Your task to perform on an android device: When is my next appointment? Image 0: 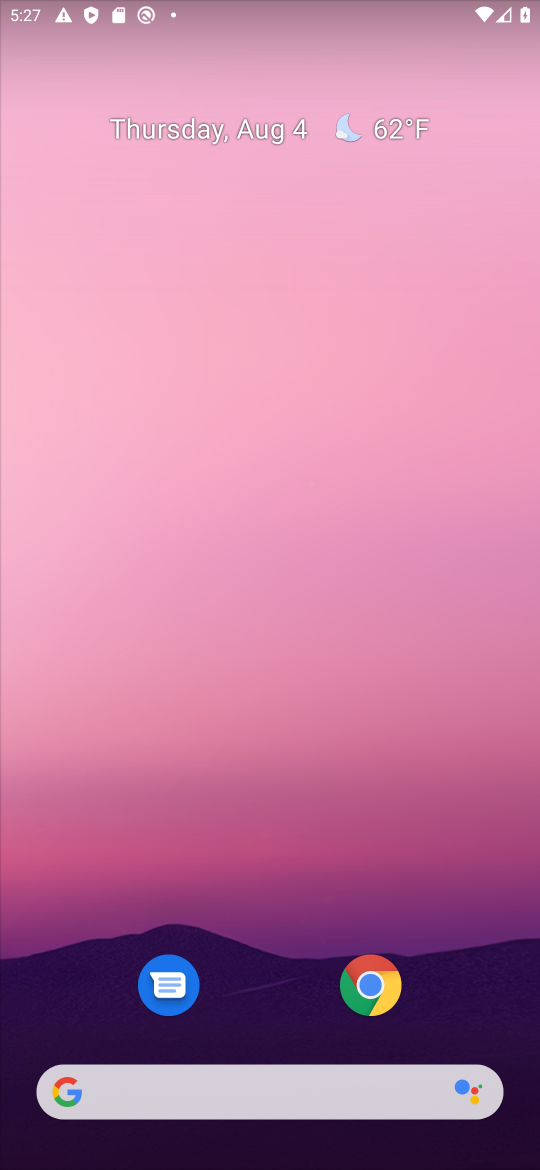
Step 0: drag from (298, 1090) to (210, 0)
Your task to perform on an android device: When is my next appointment? Image 1: 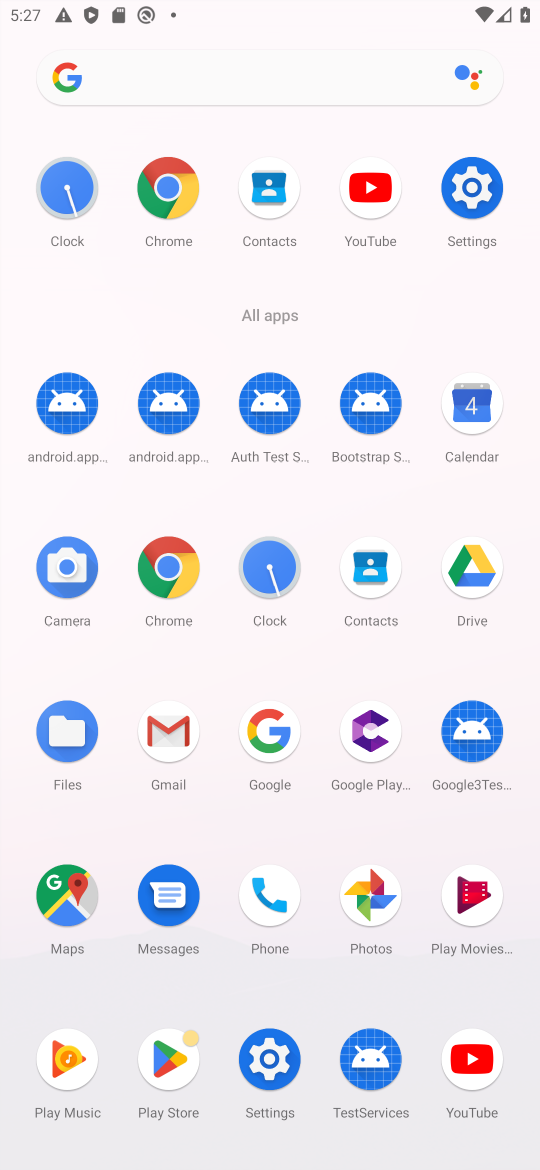
Step 1: click (489, 412)
Your task to perform on an android device: When is my next appointment? Image 2: 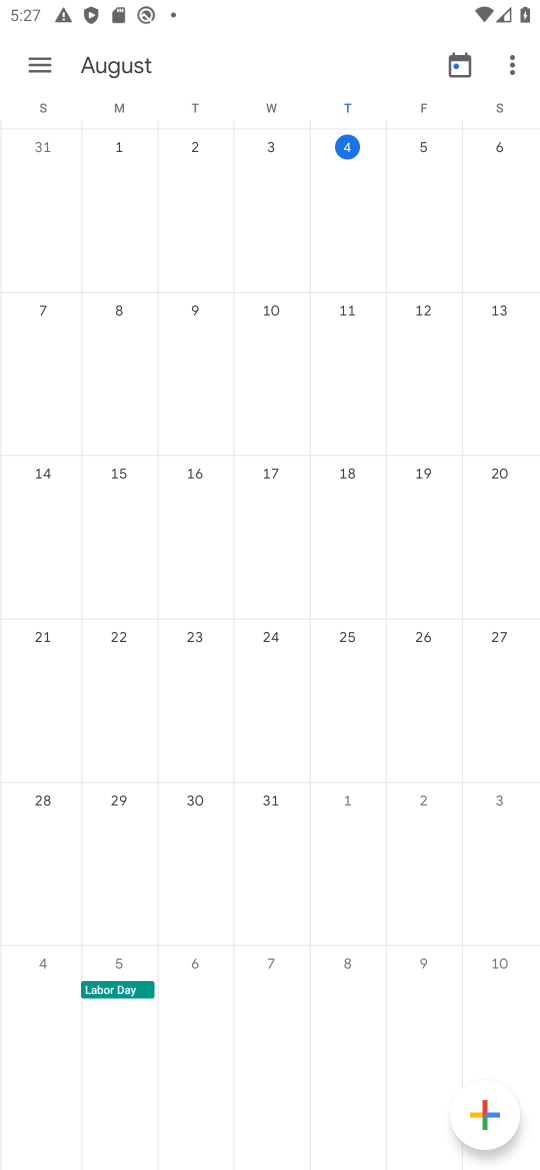
Step 2: click (31, 60)
Your task to perform on an android device: When is my next appointment? Image 3: 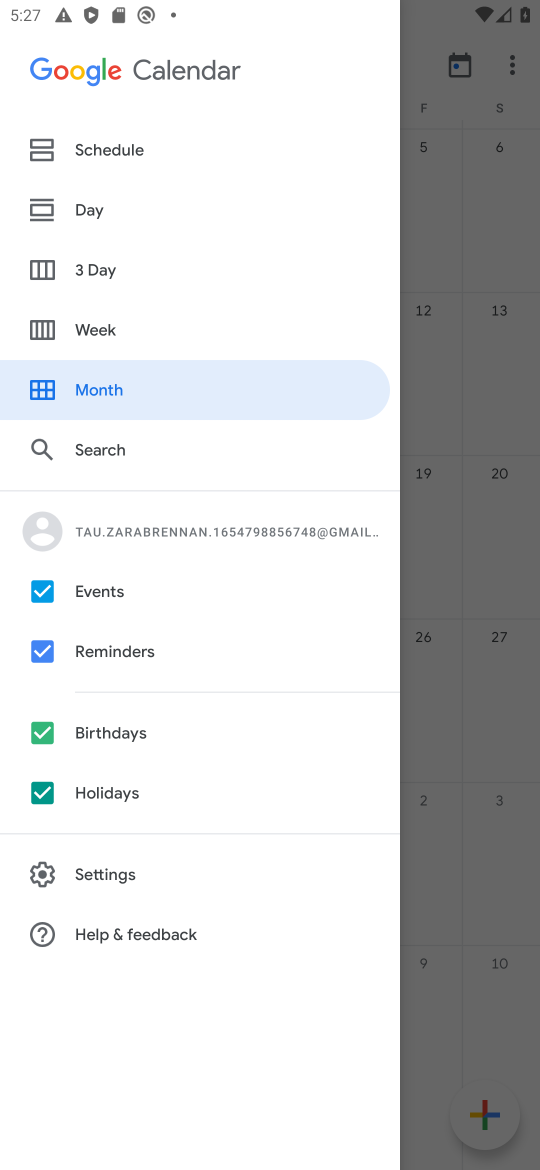
Step 3: click (99, 140)
Your task to perform on an android device: When is my next appointment? Image 4: 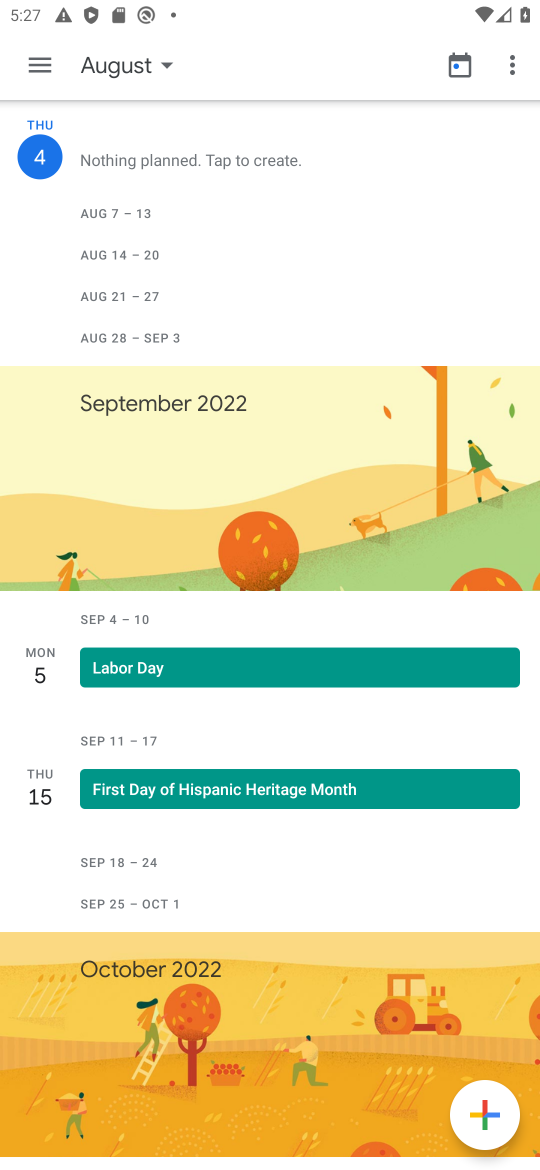
Step 4: task complete